Your task to perform on an android device: Open calendar and show me the second week of next month Image 0: 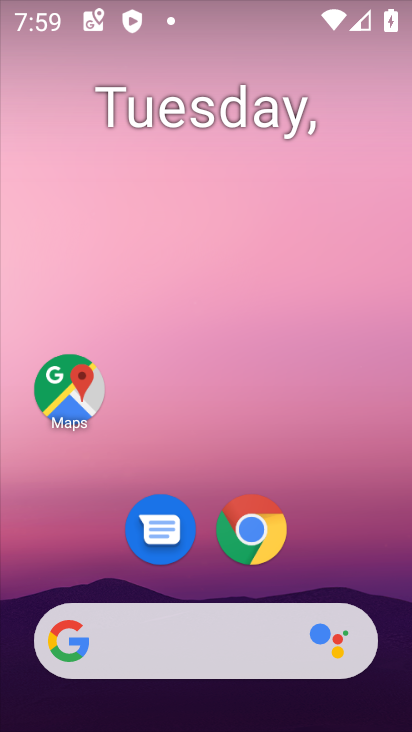
Step 0: drag from (253, 661) to (314, 131)
Your task to perform on an android device: Open calendar and show me the second week of next month Image 1: 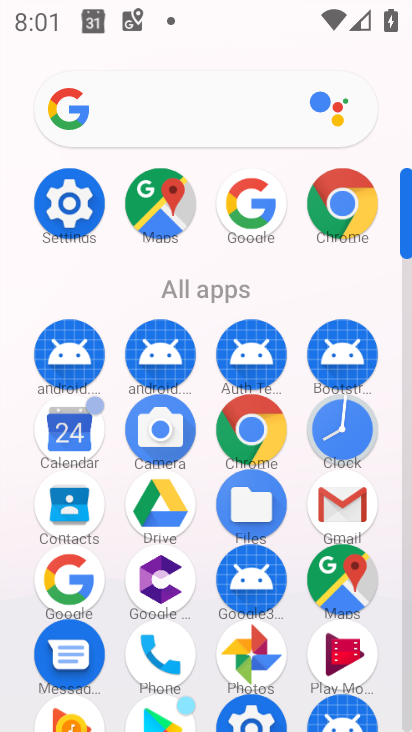
Step 1: drag from (283, 512) to (283, 326)
Your task to perform on an android device: Open calendar and show me the second week of next month Image 2: 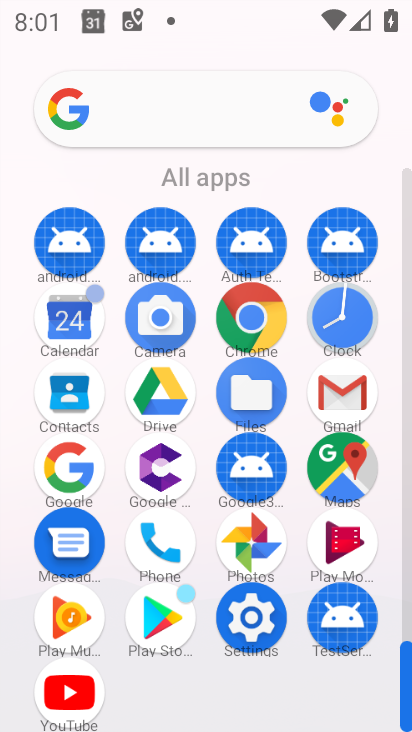
Step 2: click (76, 321)
Your task to perform on an android device: Open calendar and show me the second week of next month Image 3: 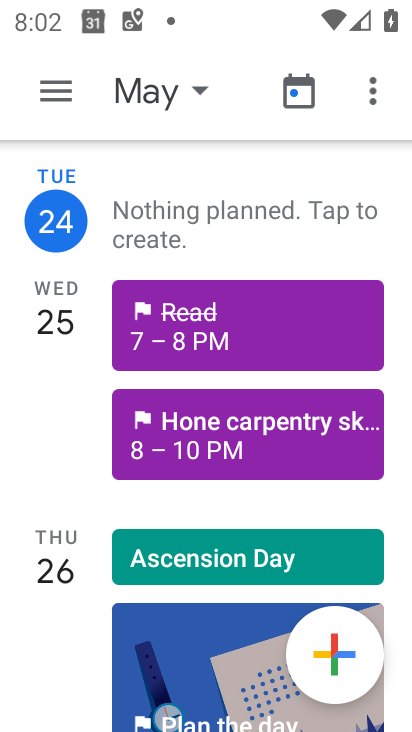
Step 3: click (180, 91)
Your task to perform on an android device: Open calendar and show me the second week of next month Image 4: 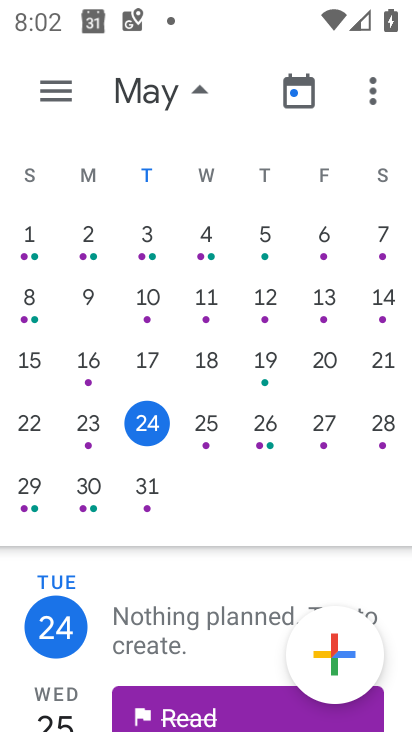
Step 4: drag from (361, 482) to (11, 279)
Your task to perform on an android device: Open calendar and show me the second week of next month Image 5: 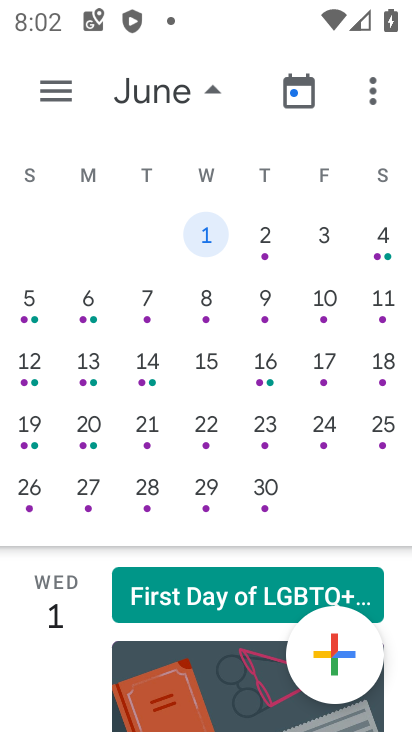
Step 5: click (27, 327)
Your task to perform on an android device: Open calendar and show me the second week of next month Image 6: 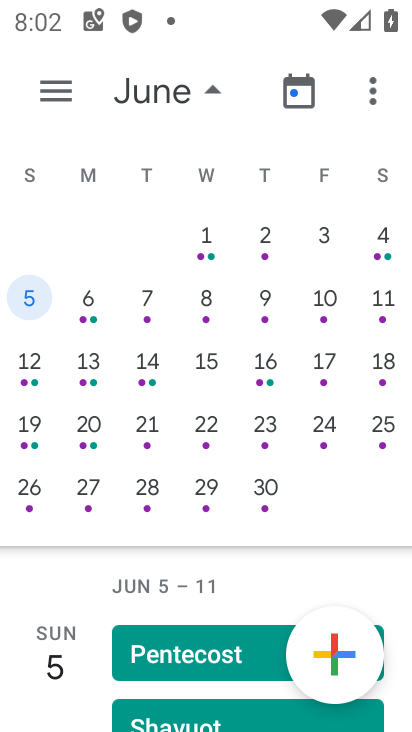
Step 6: task complete